Your task to perform on an android device: turn on improve location accuracy Image 0: 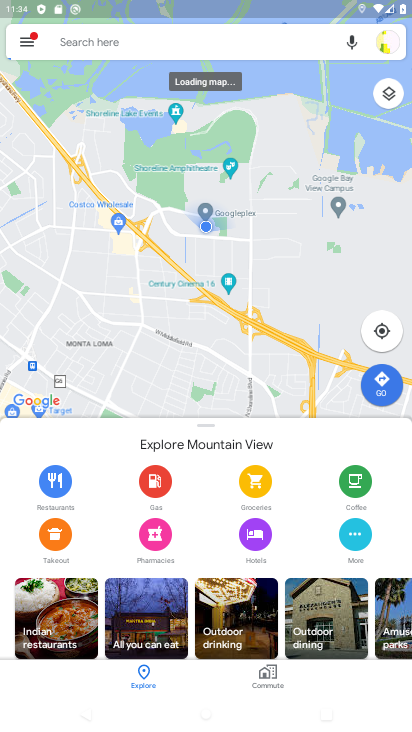
Step 0: press home button
Your task to perform on an android device: turn on improve location accuracy Image 1: 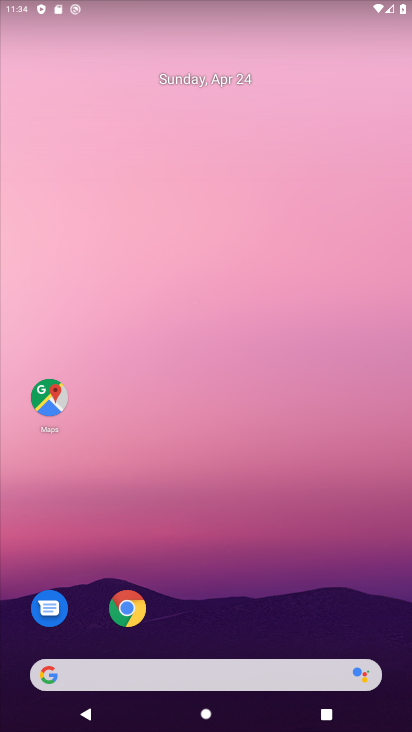
Step 1: drag from (226, 623) to (210, 95)
Your task to perform on an android device: turn on improve location accuracy Image 2: 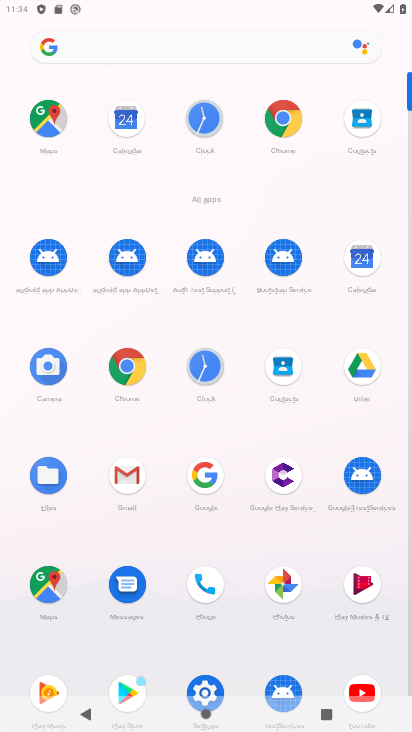
Step 2: click (201, 684)
Your task to perform on an android device: turn on improve location accuracy Image 3: 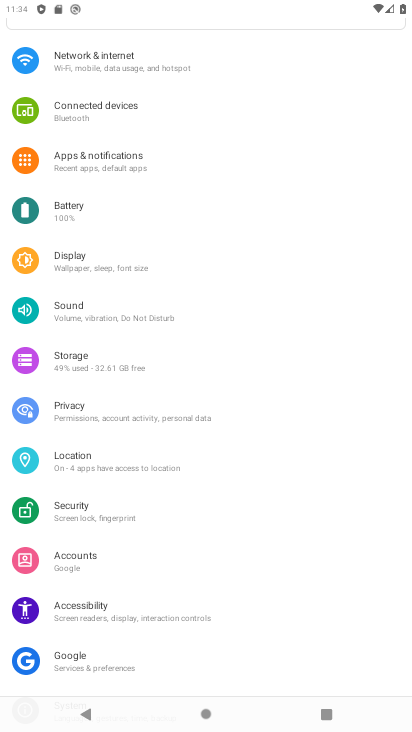
Step 3: click (86, 460)
Your task to perform on an android device: turn on improve location accuracy Image 4: 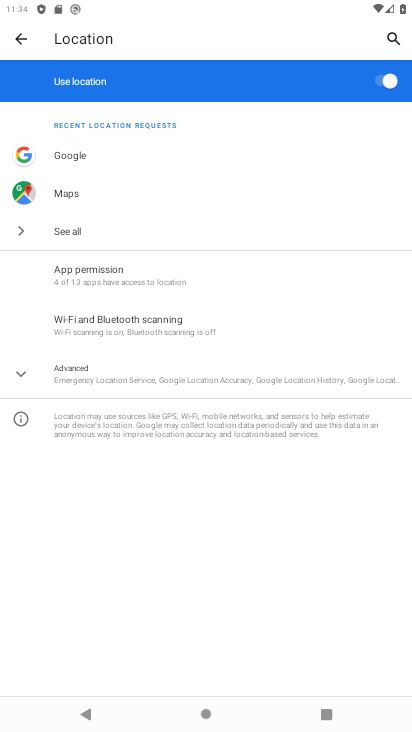
Step 4: click (114, 374)
Your task to perform on an android device: turn on improve location accuracy Image 5: 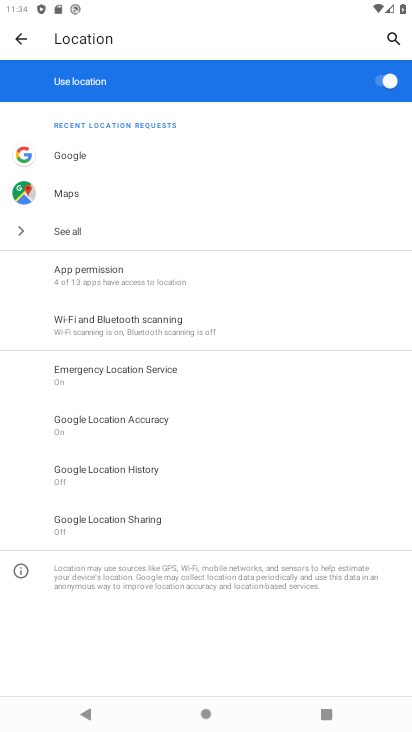
Step 5: click (126, 415)
Your task to perform on an android device: turn on improve location accuracy Image 6: 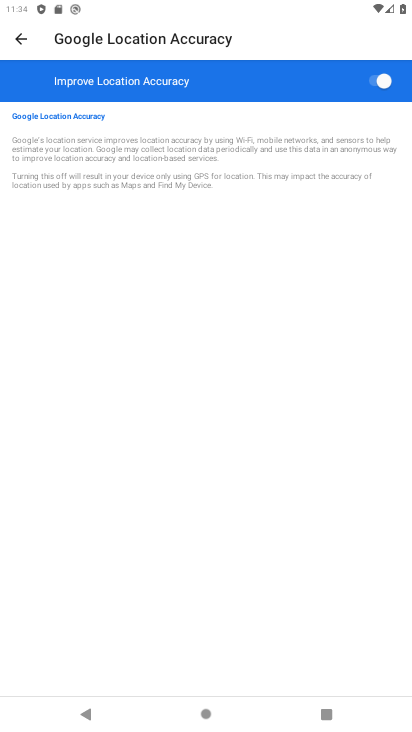
Step 6: task complete